Your task to perform on an android device: allow notifications from all sites in the chrome app Image 0: 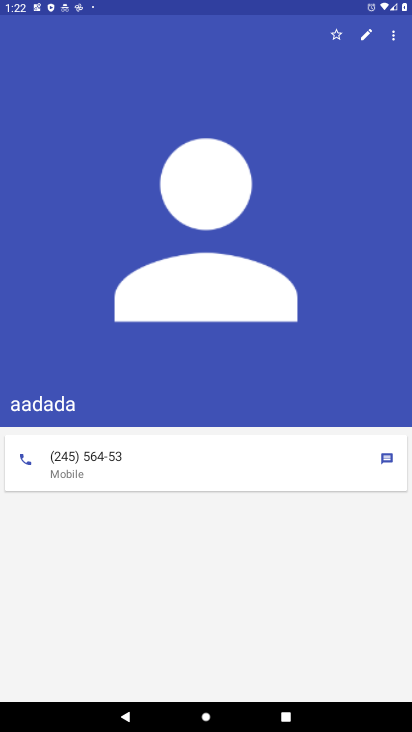
Step 0: press home button
Your task to perform on an android device: allow notifications from all sites in the chrome app Image 1: 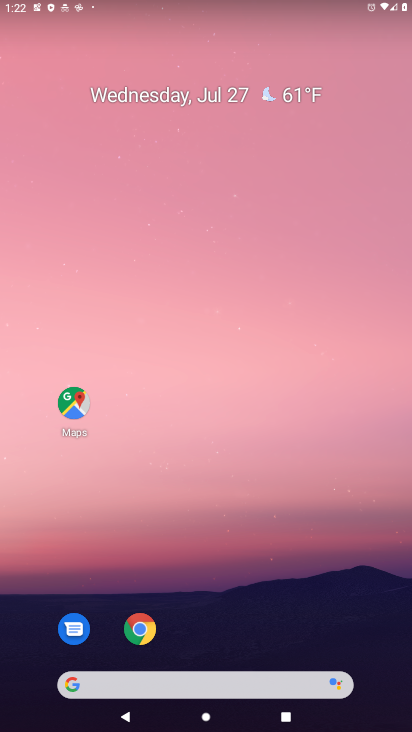
Step 1: click (157, 623)
Your task to perform on an android device: allow notifications from all sites in the chrome app Image 2: 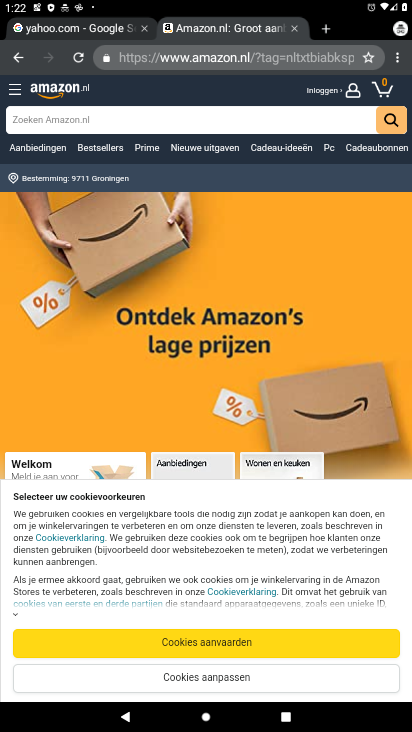
Step 2: click (395, 61)
Your task to perform on an android device: allow notifications from all sites in the chrome app Image 3: 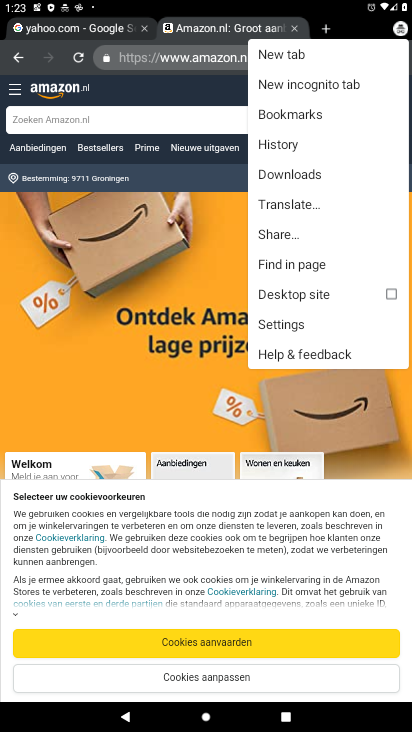
Step 3: click (292, 321)
Your task to perform on an android device: allow notifications from all sites in the chrome app Image 4: 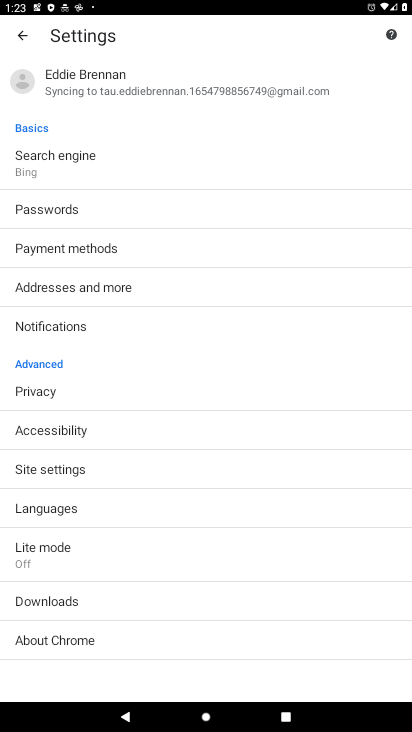
Step 4: click (292, 321)
Your task to perform on an android device: allow notifications from all sites in the chrome app Image 5: 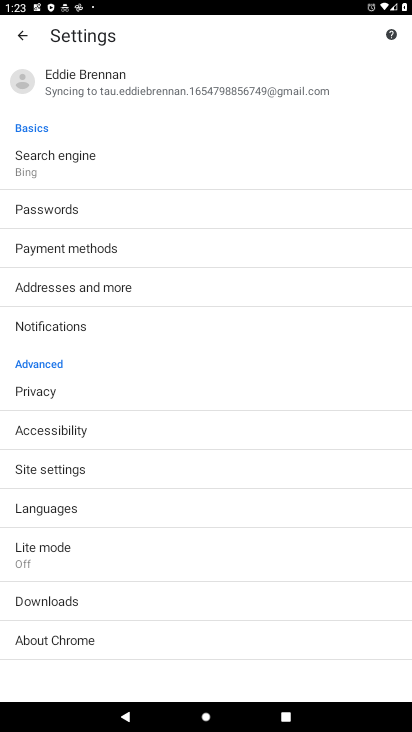
Step 5: click (292, 321)
Your task to perform on an android device: allow notifications from all sites in the chrome app Image 6: 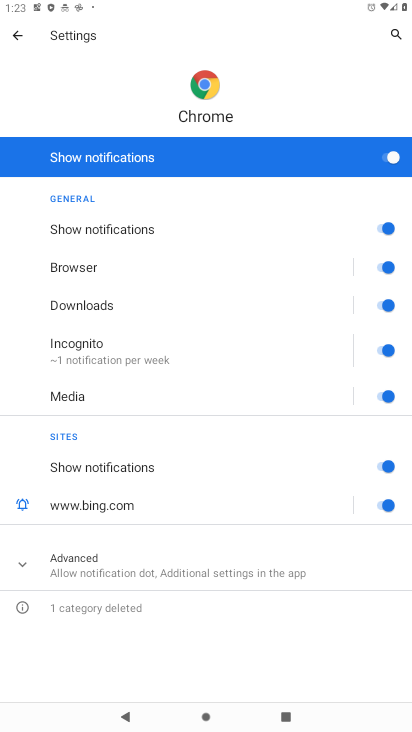
Step 6: task complete